Your task to perform on an android device: Go to wifi settings Image 0: 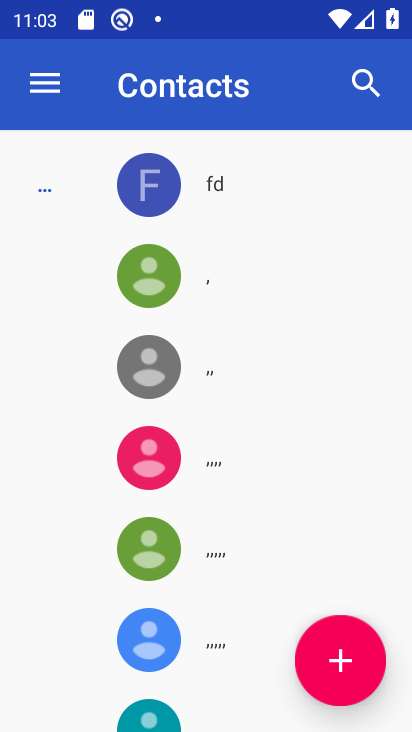
Step 0: press home button
Your task to perform on an android device: Go to wifi settings Image 1: 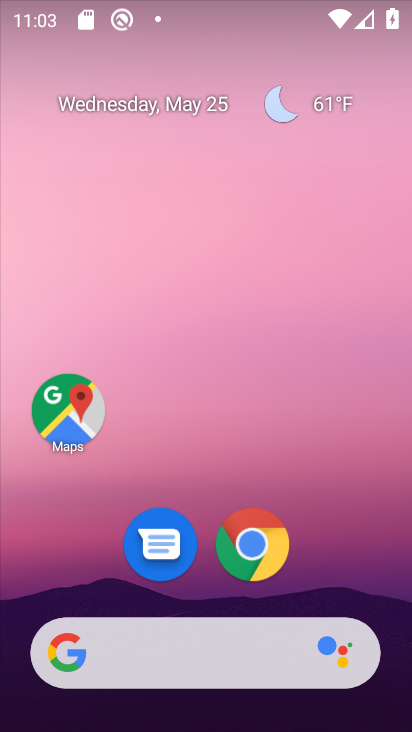
Step 1: drag from (326, 554) to (88, 200)
Your task to perform on an android device: Go to wifi settings Image 2: 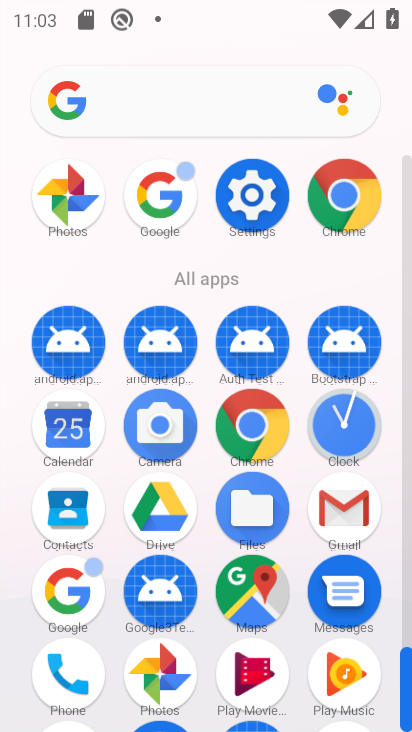
Step 2: click (265, 183)
Your task to perform on an android device: Go to wifi settings Image 3: 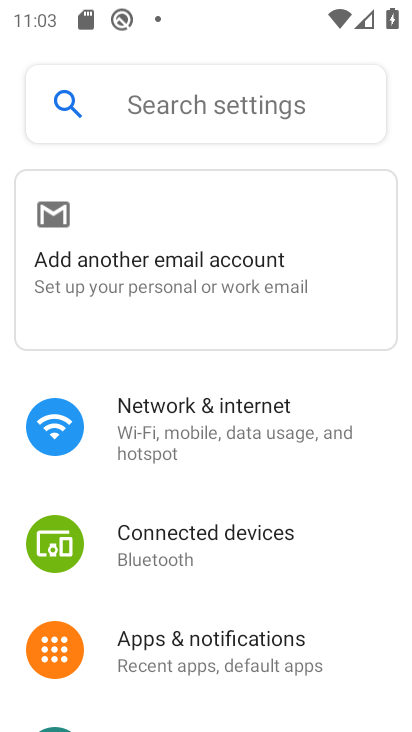
Step 3: click (181, 433)
Your task to perform on an android device: Go to wifi settings Image 4: 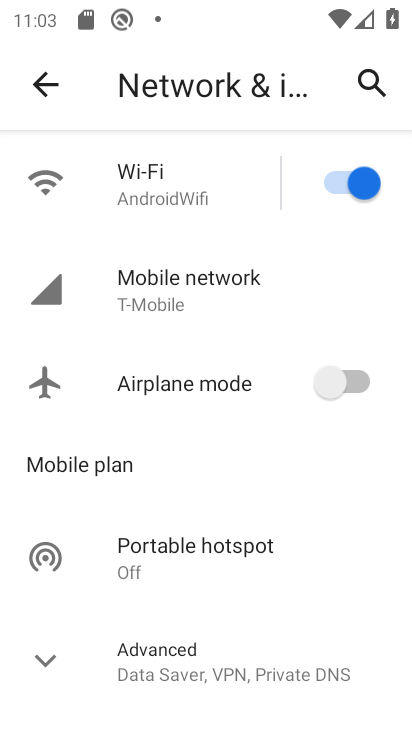
Step 4: click (161, 167)
Your task to perform on an android device: Go to wifi settings Image 5: 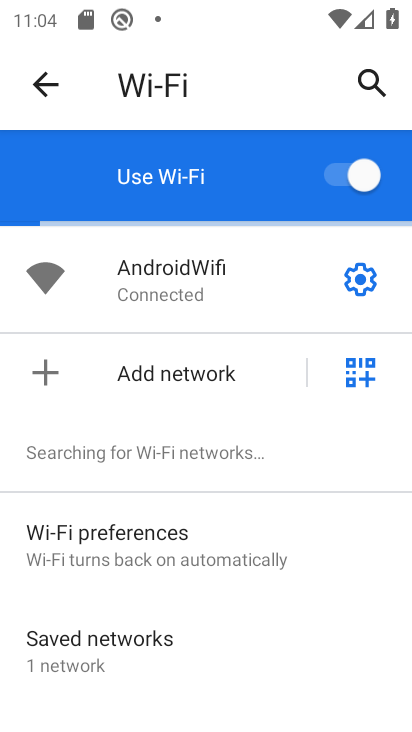
Step 5: task complete